Your task to perform on an android device: check google app version Image 0: 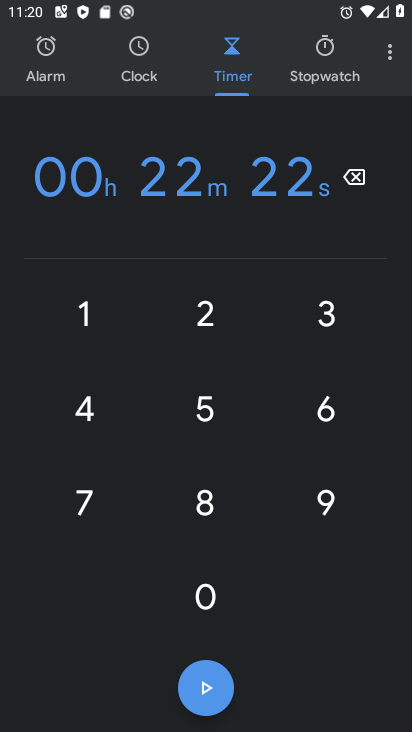
Step 0: press home button
Your task to perform on an android device: check google app version Image 1: 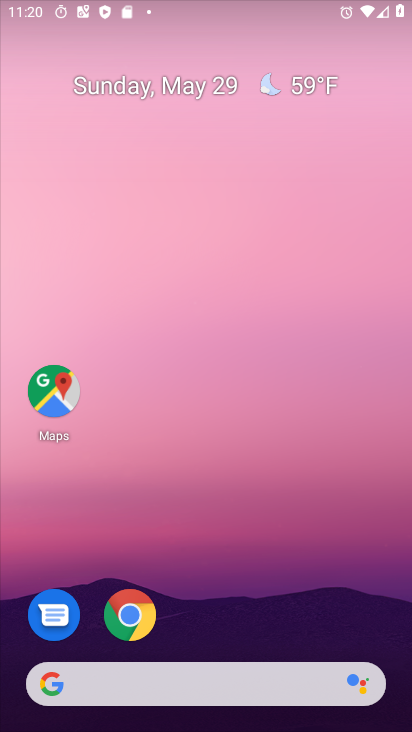
Step 1: drag from (213, 502) to (272, 60)
Your task to perform on an android device: check google app version Image 2: 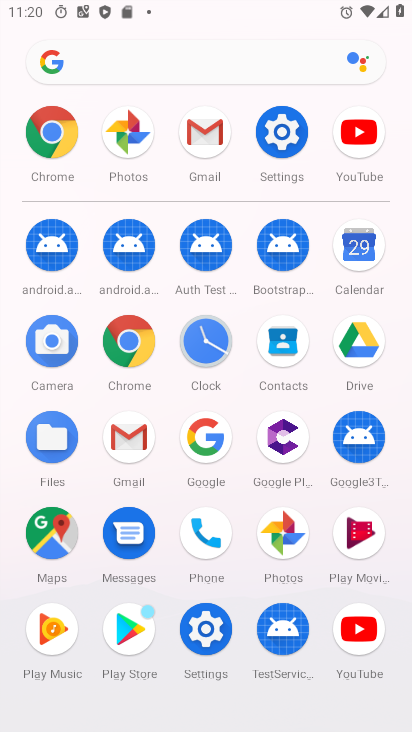
Step 2: click (210, 431)
Your task to perform on an android device: check google app version Image 3: 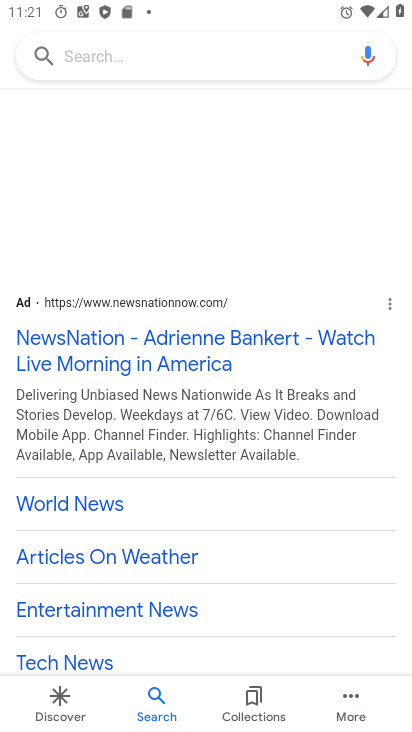
Step 3: drag from (353, 713) to (356, 344)
Your task to perform on an android device: check google app version Image 4: 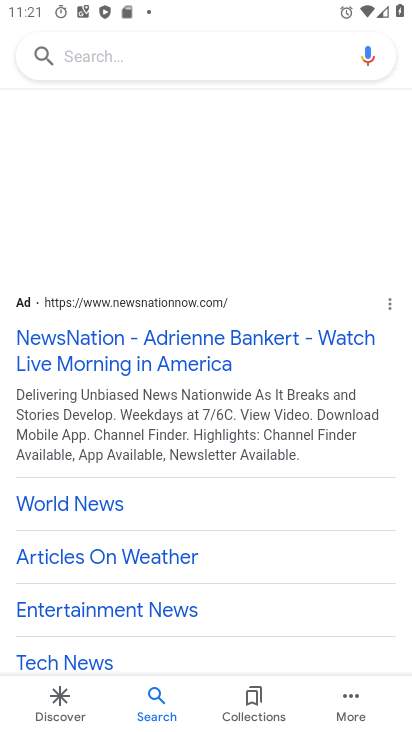
Step 4: click (292, 217)
Your task to perform on an android device: check google app version Image 5: 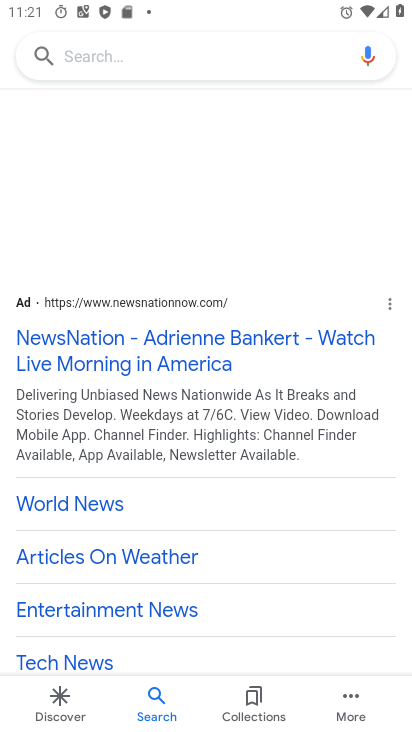
Step 5: click (345, 717)
Your task to perform on an android device: check google app version Image 6: 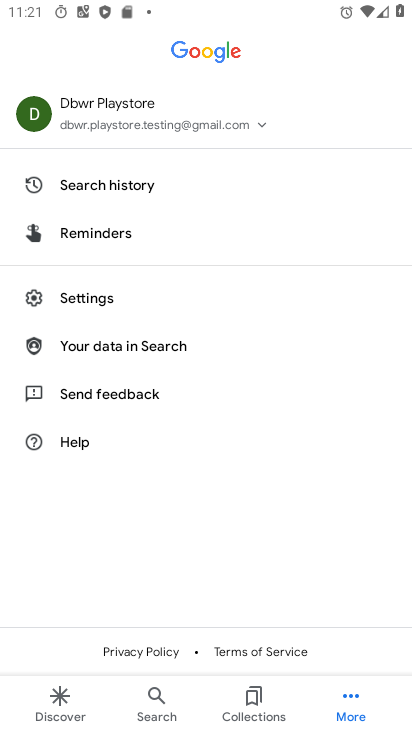
Step 6: click (50, 289)
Your task to perform on an android device: check google app version Image 7: 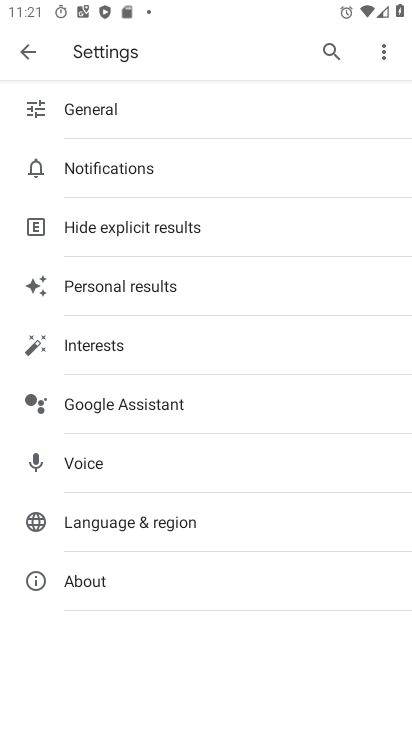
Step 7: click (127, 594)
Your task to perform on an android device: check google app version Image 8: 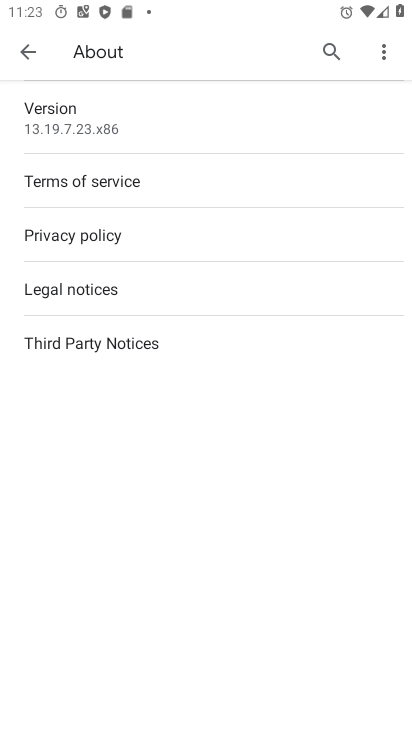
Step 8: task complete